Your task to perform on an android device: turn smart compose on in the gmail app Image 0: 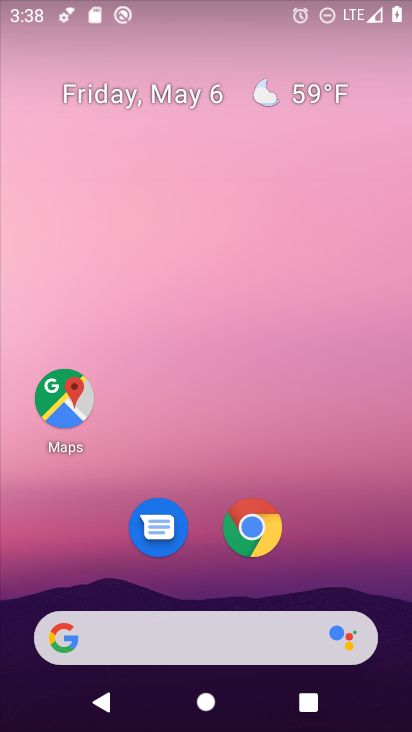
Step 0: drag from (335, 524) to (353, 128)
Your task to perform on an android device: turn smart compose on in the gmail app Image 1: 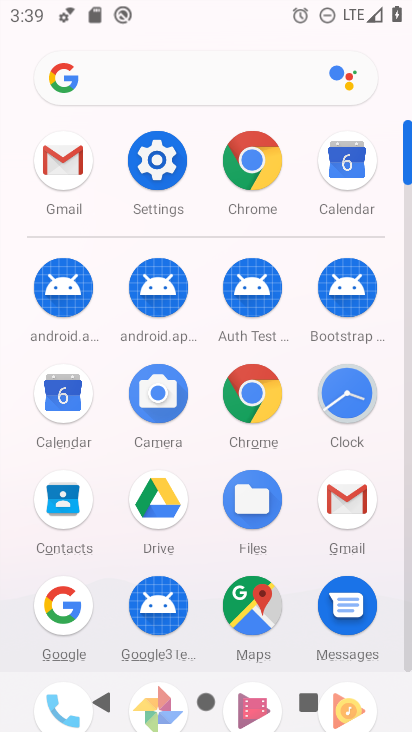
Step 1: click (332, 502)
Your task to perform on an android device: turn smart compose on in the gmail app Image 2: 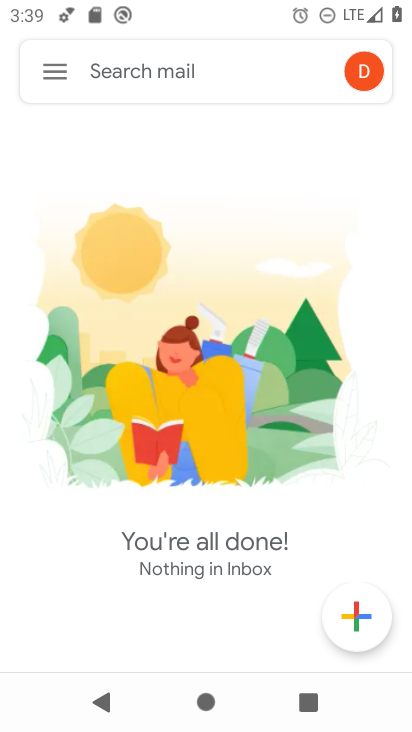
Step 2: click (40, 59)
Your task to perform on an android device: turn smart compose on in the gmail app Image 3: 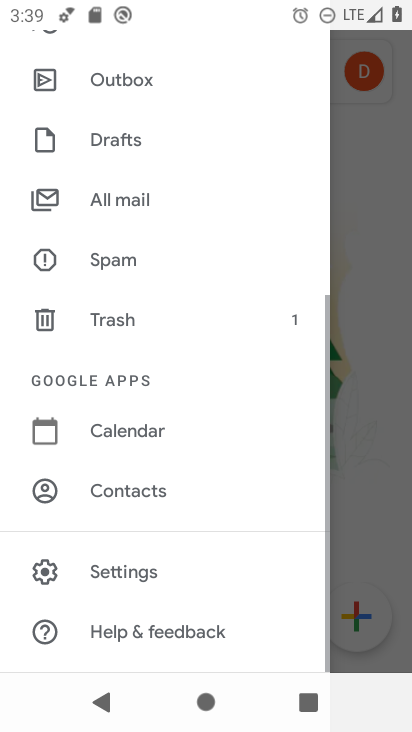
Step 3: click (228, 552)
Your task to perform on an android device: turn smart compose on in the gmail app Image 4: 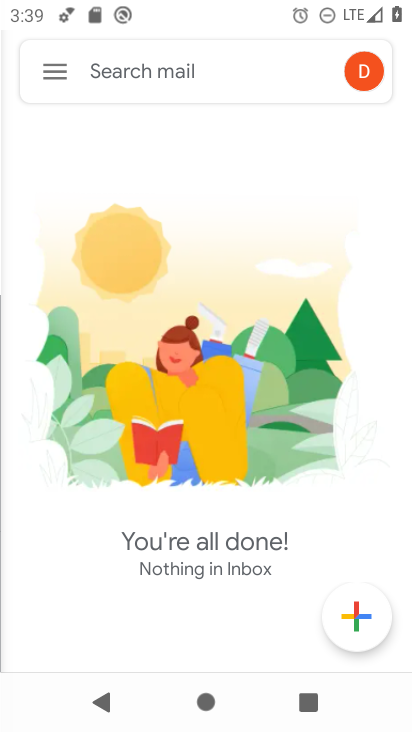
Step 4: click (146, 571)
Your task to perform on an android device: turn smart compose on in the gmail app Image 5: 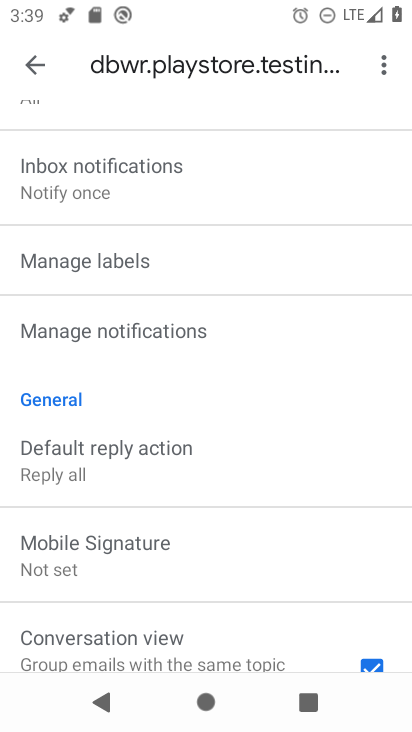
Step 5: task complete